Your task to perform on an android device: change the clock display to analog Image 0: 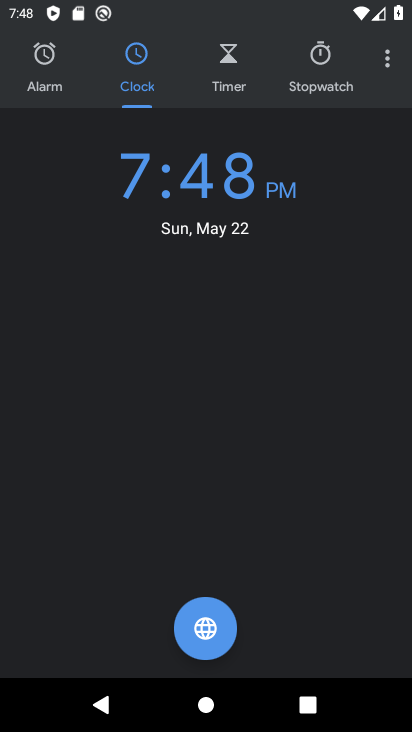
Step 0: press home button
Your task to perform on an android device: change the clock display to analog Image 1: 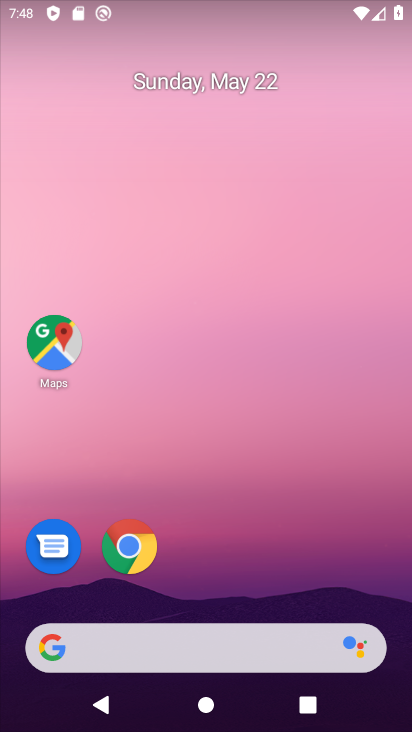
Step 1: drag from (195, 638) to (384, 125)
Your task to perform on an android device: change the clock display to analog Image 2: 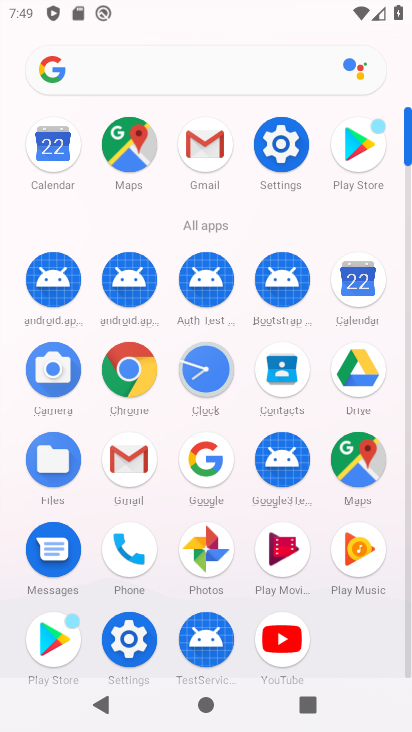
Step 2: click (207, 383)
Your task to perform on an android device: change the clock display to analog Image 3: 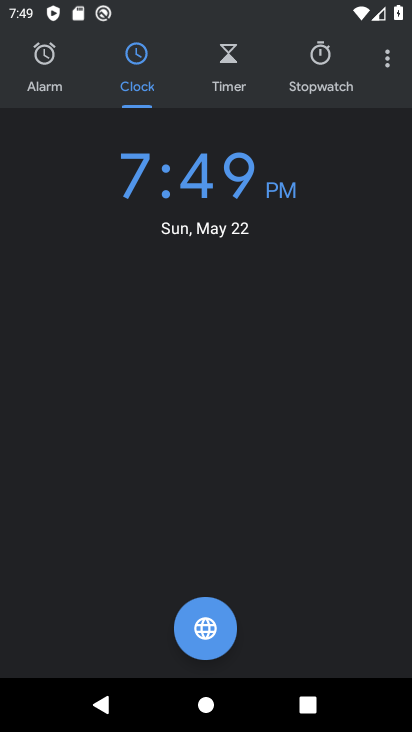
Step 3: click (385, 60)
Your task to perform on an android device: change the clock display to analog Image 4: 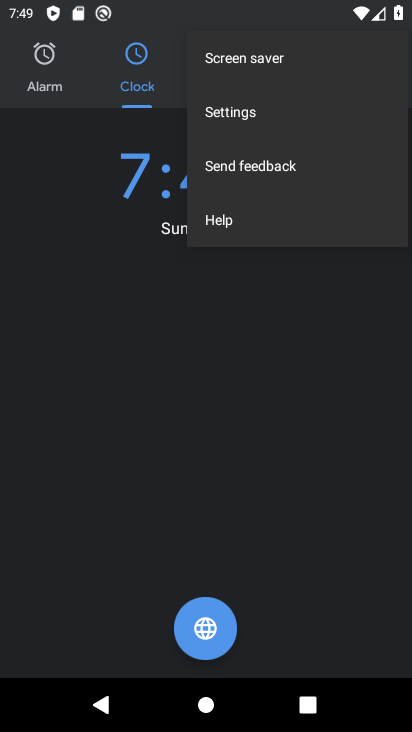
Step 4: click (253, 115)
Your task to perform on an android device: change the clock display to analog Image 5: 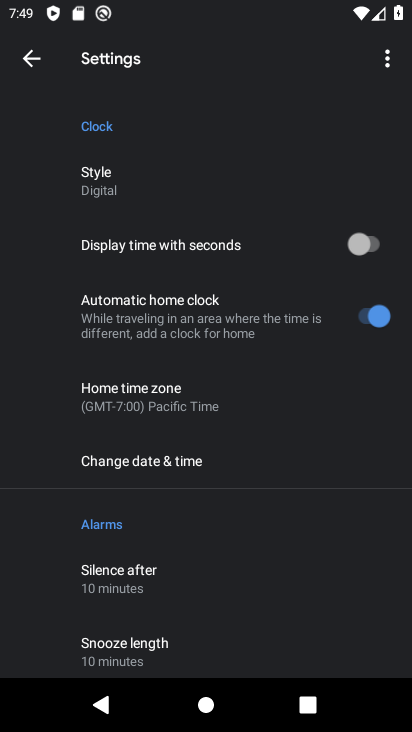
Step 5: click (108, 181)
Your task to perform on an android device: change the clock display to analog Image 6: 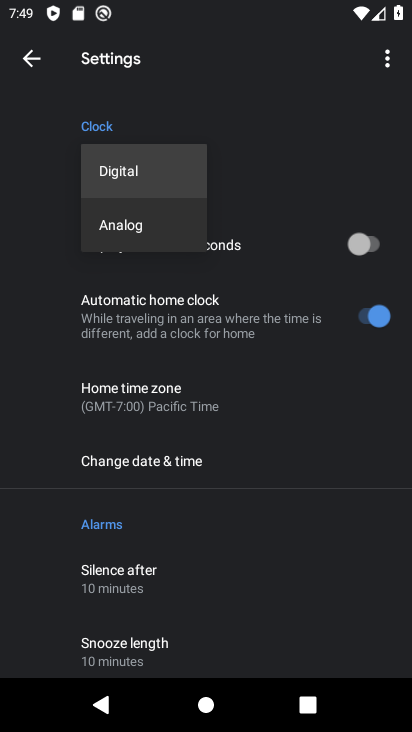
Step 6: click (138, 231)
Your task to perform on an android device: change the clock display to analog Image 7: 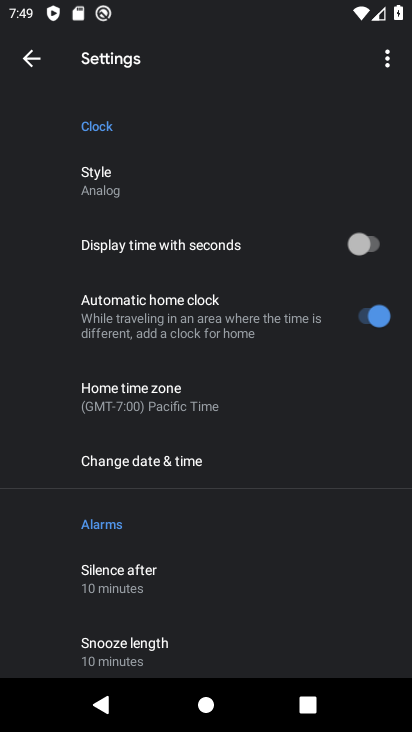
Step 7: task complete